Your task to perform on an android device: turn vacation reply on in the gmail app Image 0: 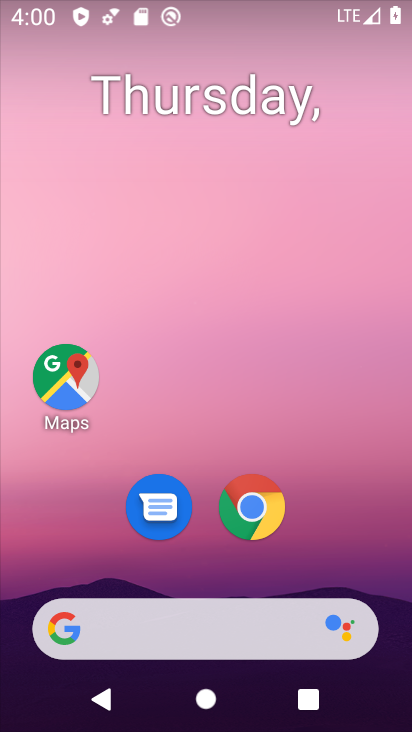
Step 0: drag from (359, 527) to (405, 191)
Your task to perform on an android device: turn vacation reply on in the gmail app Image 1: 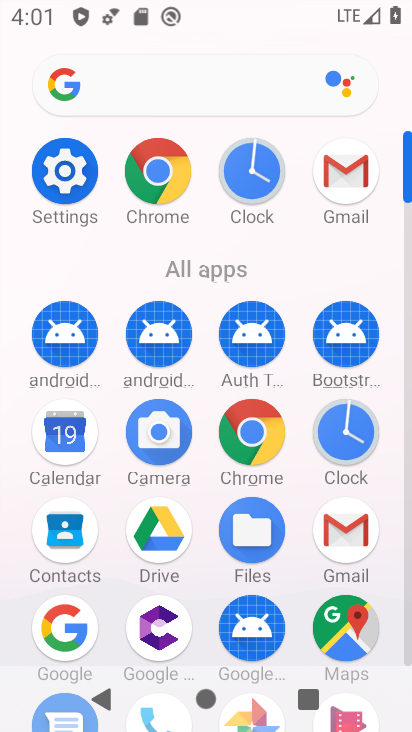
Step 1: click (331, 521)
Your task to perform on an android device: turn vacation reply on in the gmail app Image 2: 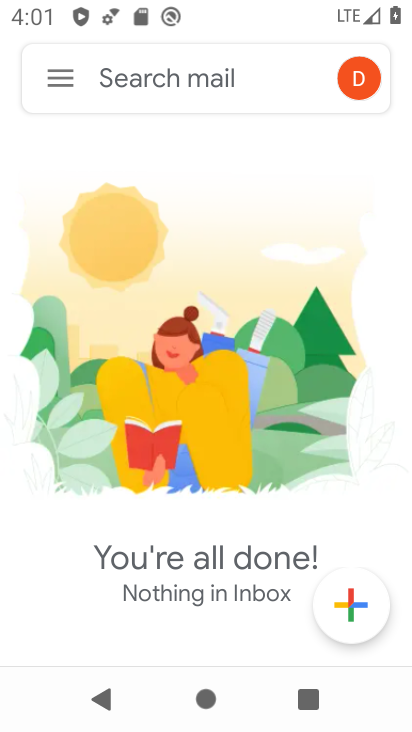
Step 2: click (240, 81)
Your task to perform on an android device: turn vacation reply on in the gmail app Image 3: 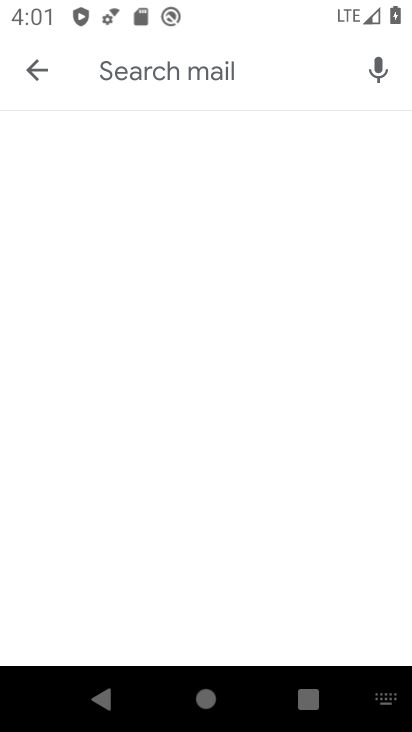
Step 3: click (11, 73)
Your task to perform on an android device: turn vacation reply on in the gmail app Image 4: 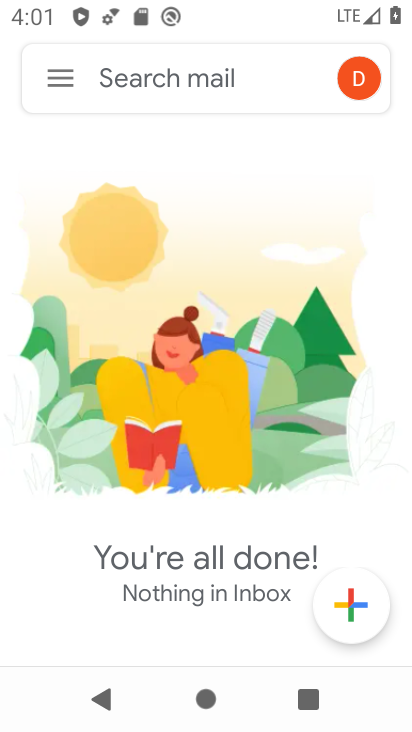
Step 4: click (26, 68)
Your task to perform on an android device: turn vacation reply on in the gmail app Image 5: 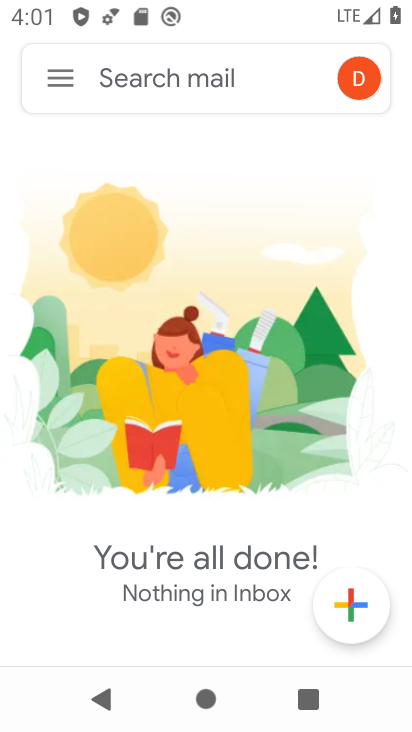
Step 5: click (42, 80)
Your task to perform on an android device: turn vacation reply on in the gmail app Image 6: 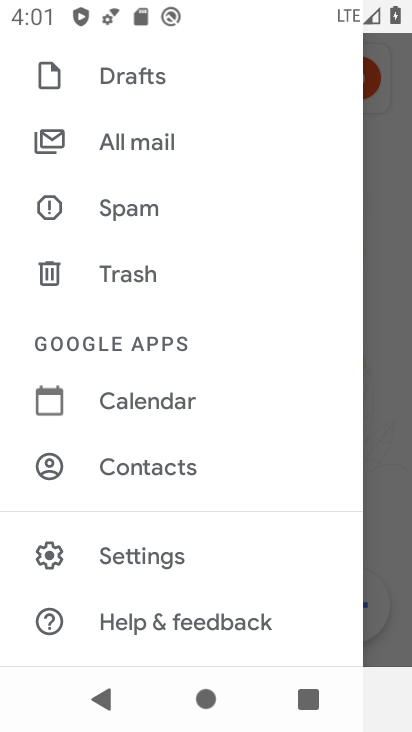
Step 6: click (99, 547)
Your task to perform on an android device: turn vacation reply on in the gmail app Image 7: 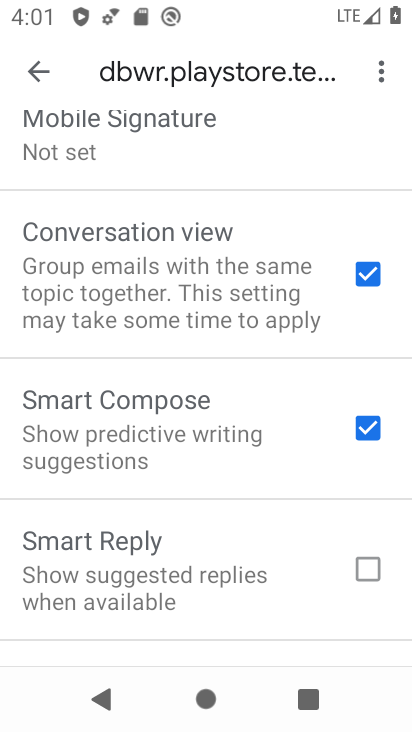
Step 7: drag from (147, 575) to (171, 258)
Your task to perform on an android device: turn vacation reply on in the gmail app Image 8: 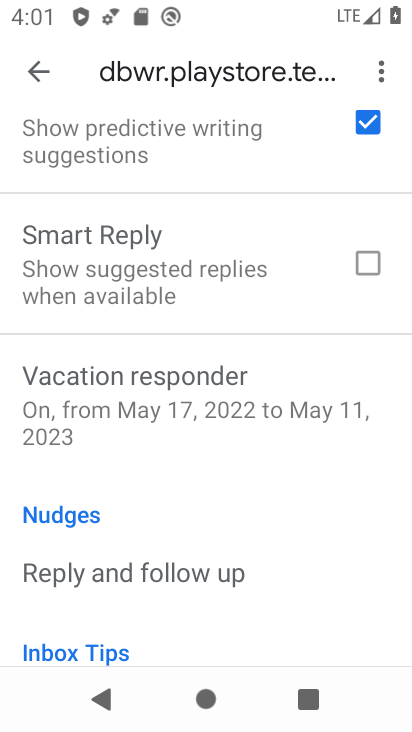
Step 8: click (192, 392)
Your task to perform on an android device: turn vacation reply on in the gmail app Image 9: 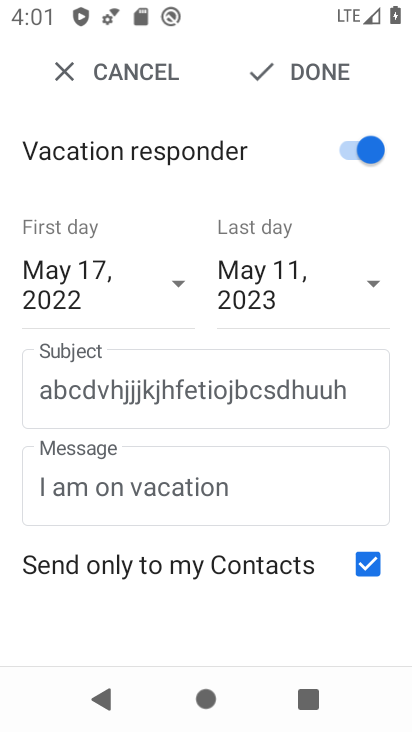
Step 9: click (330, 72)
Your task to perform on an android device: turn vacation reply on in the gmail app Image 10: 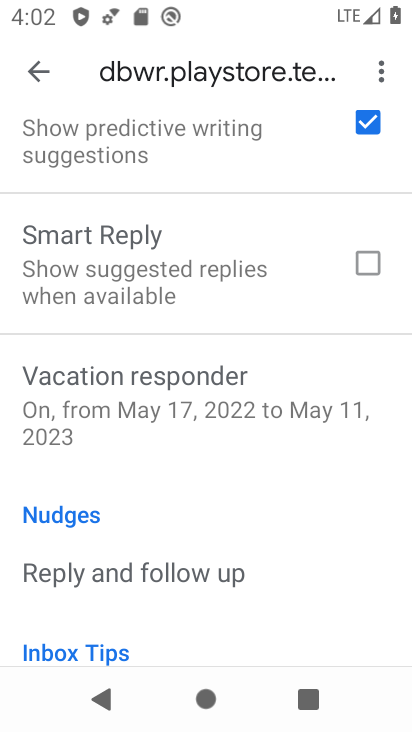
Step 10: task complete